Your task to perform on an android device: turn on data saver in the chrome app Image 0: 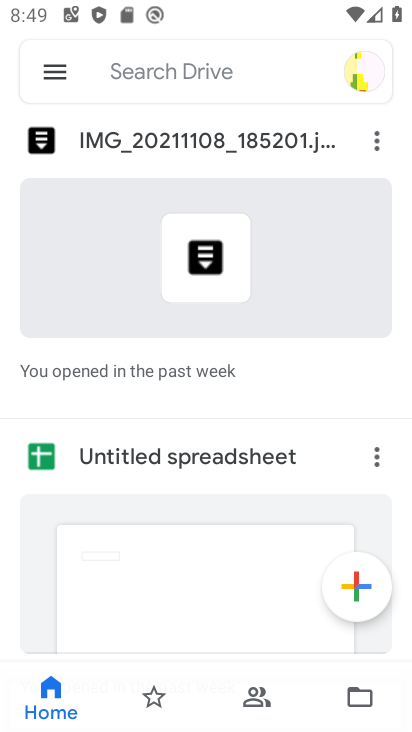
Step 0: press home button
Your task to perform on an android device: turn on data saver in the chrome app Image 1: 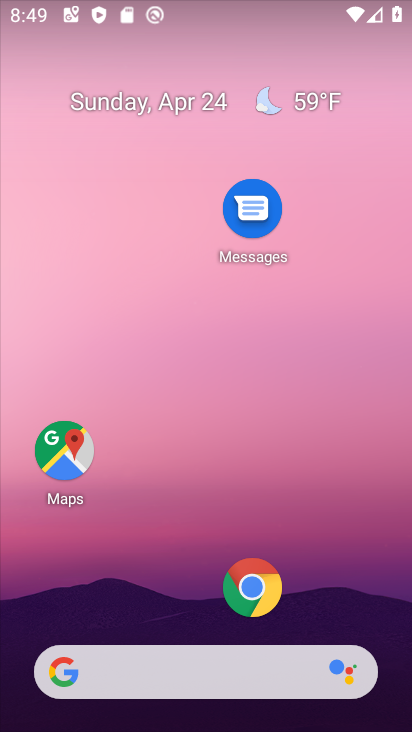
Step 1: click (244, 583)
Your task to perform on an android device: turn on data saver in the chrome app Image 2: 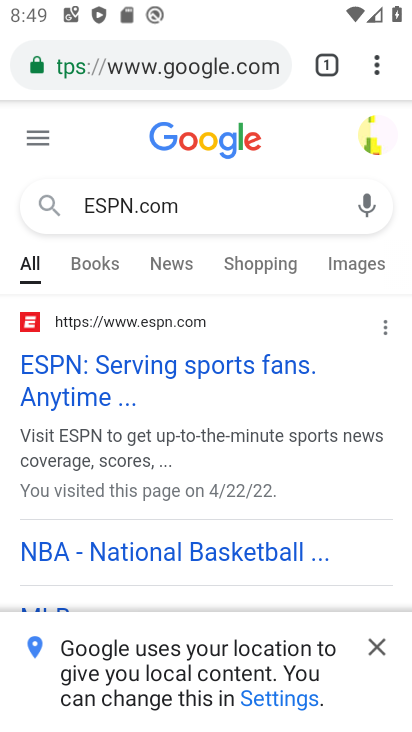
Step 2: click (379, 640)
Your task to perform on an android device: turn on data saver in the chrome app Image 3: 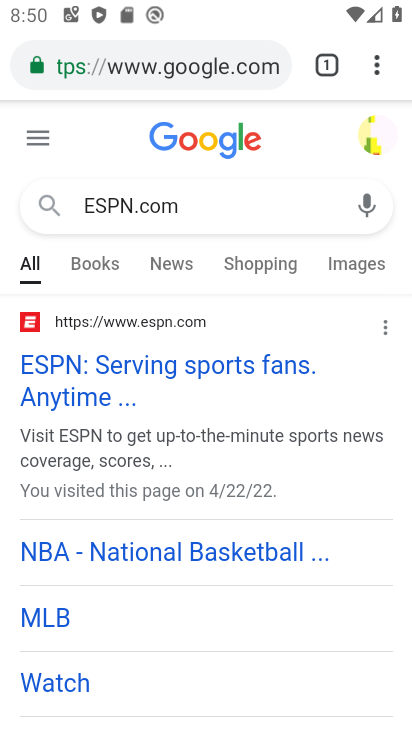
Step 3: click (369, 67)
Your task to perform on an android device: turn on data saver in the chrome app Image 4: 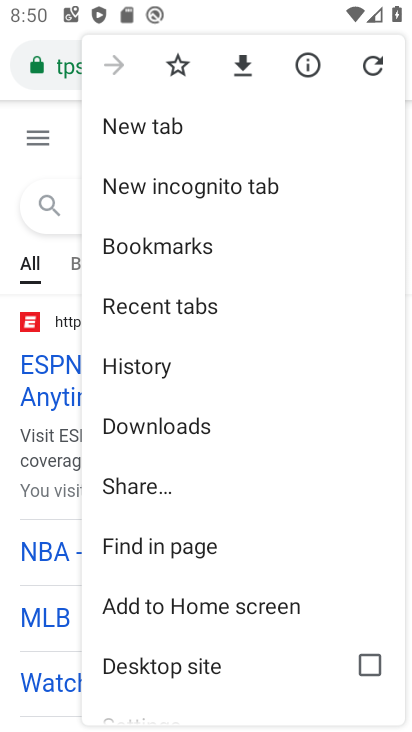
Step 4: drag from (159, 561) to (222, 89)
Your task to perform on an android device: turn on data saver in the chrome app Image 5: 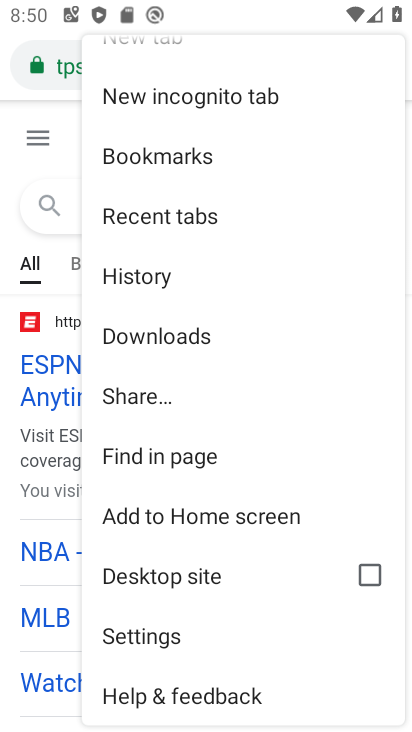
Step 5: click (153, 638)
Your task to perform on an android device: turn on data saver in the chrome app Image 6: 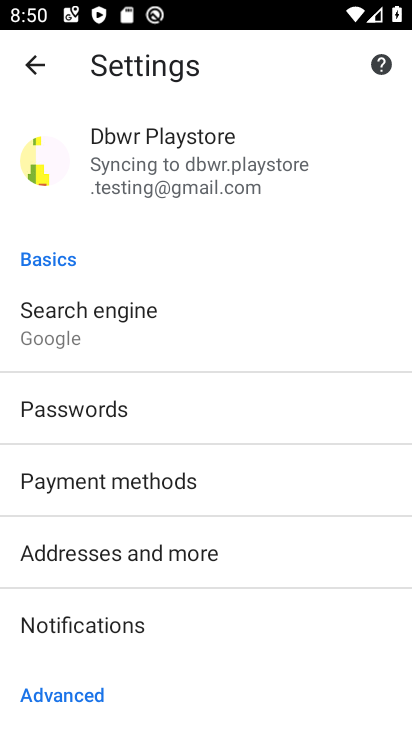
Step 6: drag from (124, 620) to (201, 283)
Your task to perform on an android device: turn on data saver in the chrome app Image 7: 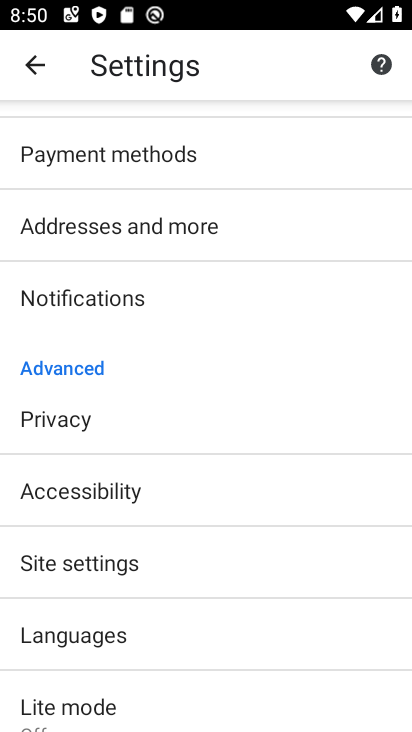
Step 7: drag from (84, 635) to (139, 362)
Your task to perform on an android device: turn on data saver in the chrome app Image 8: 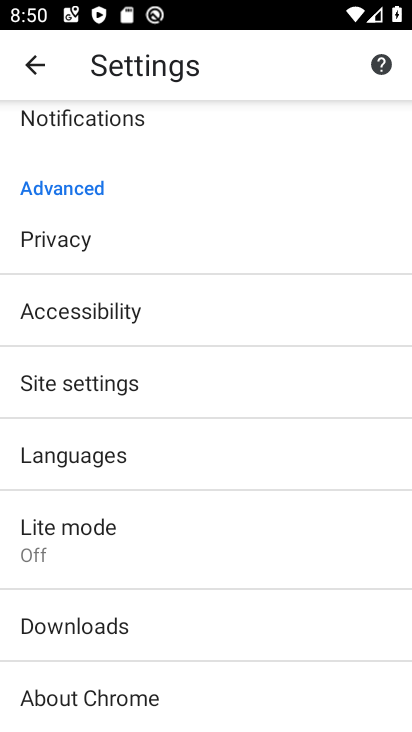
Step 8: click (80, 543)
Your task to perform on an android device: turn on data saver in the chrome app Image 9: 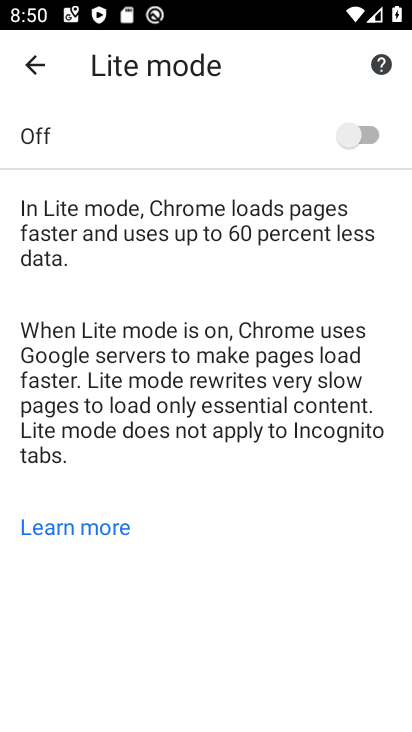
Step 9: click (375, 140)
Your task to perform on an android device: turn on data saver in the chrome app Image 10: 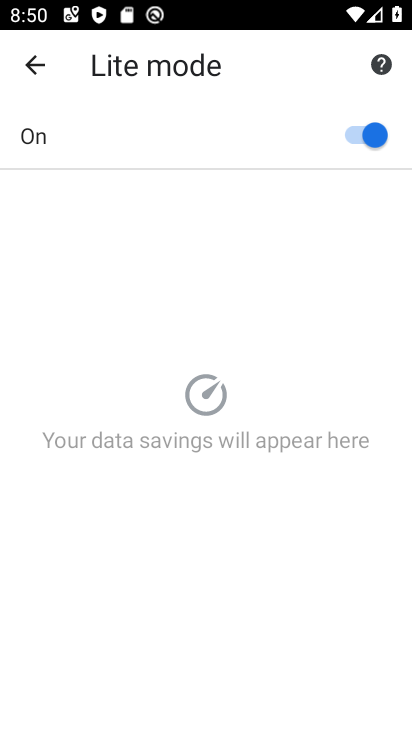
Step 10: task complete